Your task to perform on an android device: Open maps Image 0: 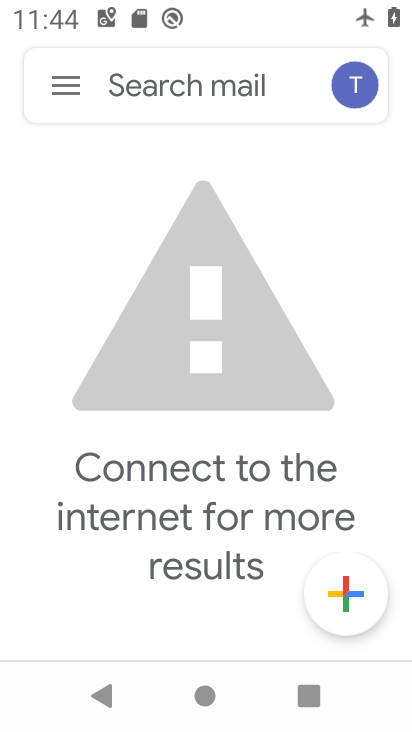
Step 0: press home button
Your task to perform on an android device: Open maps Image 1: 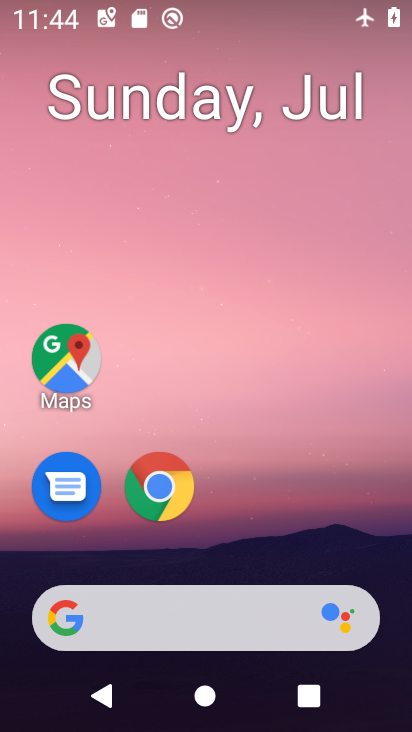
Step 1: drag from (346, 513) to (346, 139)
Your task to perform on an android device: Open maps Image 2: 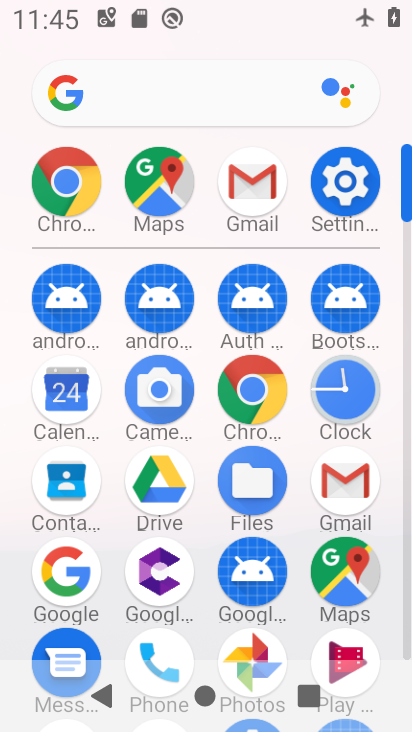
Step 2: click (344, 560)
Your task to perform on an android device: Open maps Image 3: 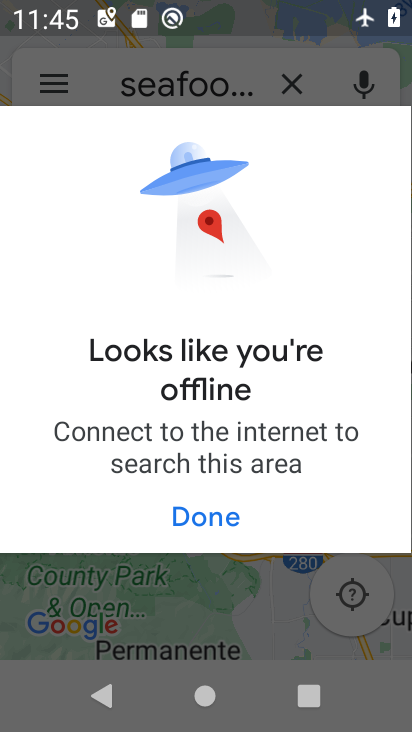
Step 3: task complete